Your task to perform on an android device: turn on notifications settings in the gmail app Image 0: 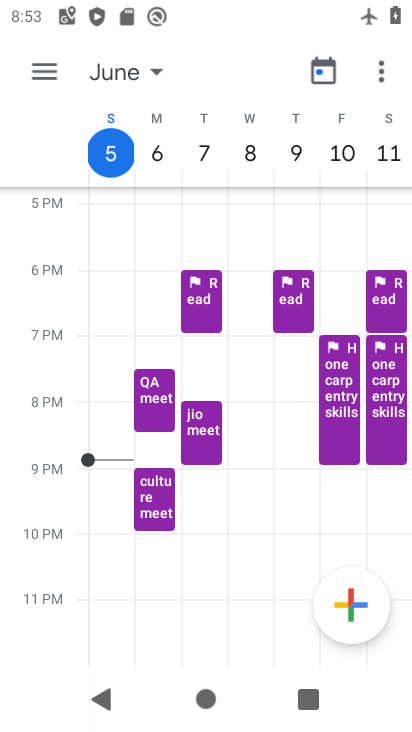
Step 0: press home button
Your task to perform on an android device: turn on notifications settings in the gmail app Image 1: 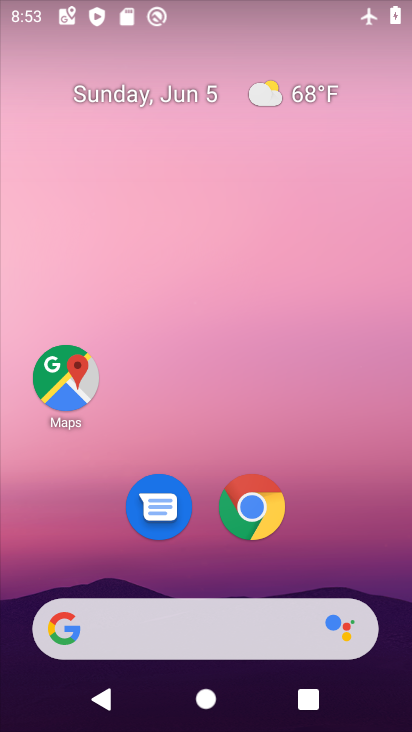
Step 1: drag from (224, 561) to (246, 132)
Your task to perform on an android device: turn on notifications settings in the gmail app Image 2: 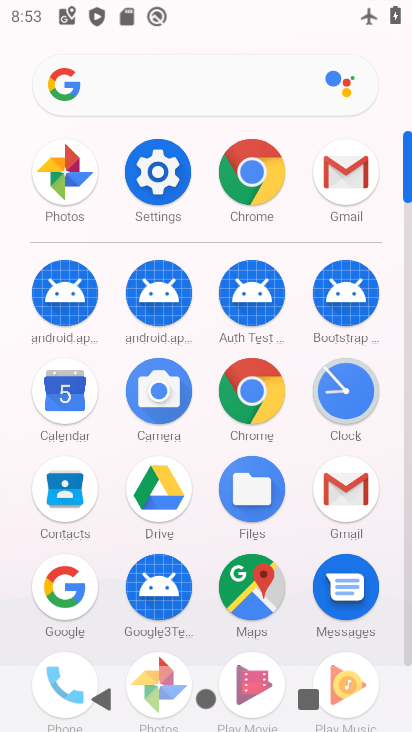
Step 2: click (346, 500)
Your task to perform on an android device: turn on notifications settings in the gmail app Image 3: 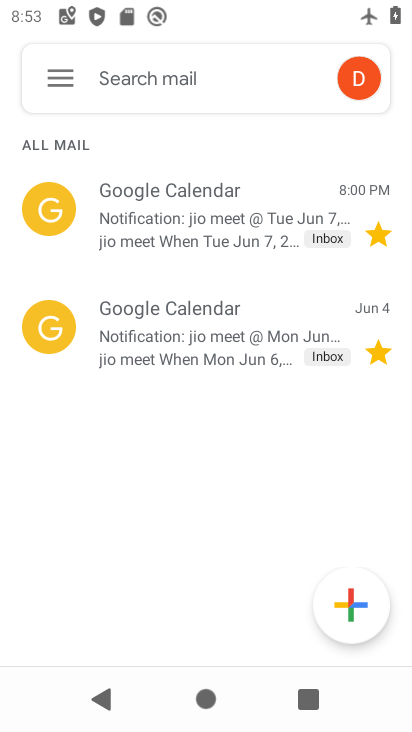
Step 3: click (54, 64)
Your task to perform on an android device: turn on notifications settings in the gmail app Image 4: 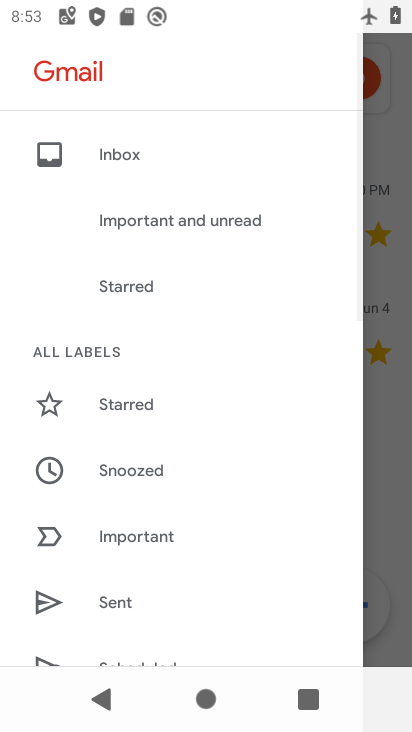
Step 4: drag from (139, 548) to (186, 113)
Your task to perform on an android device: turn on notifications settings in the gmail app Image 5: 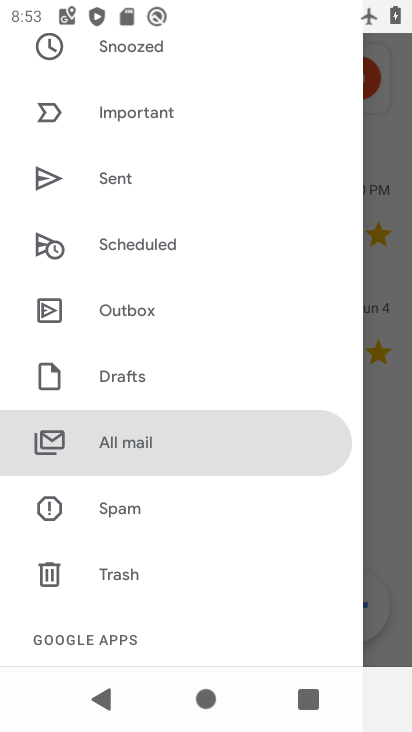
Step 5: drag from (159, 590) to (215, 111)
Your task to perform on an android device: turn on notifications settings in the gmail app Image 6: 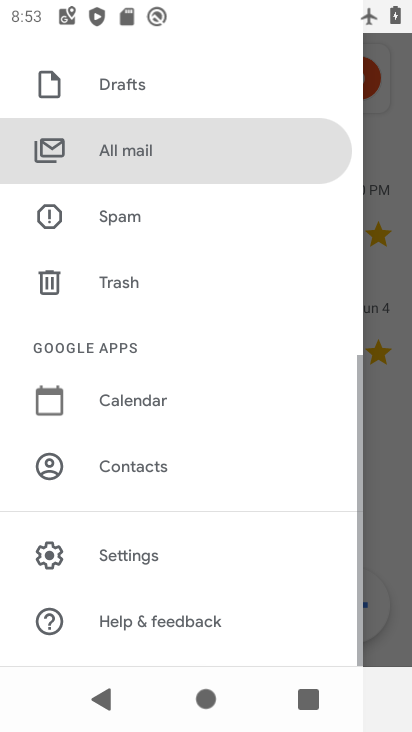
Step 6: click (125, 574)
Your task to perform on an android device: turn on notifications settings in the gmail app Image 7: 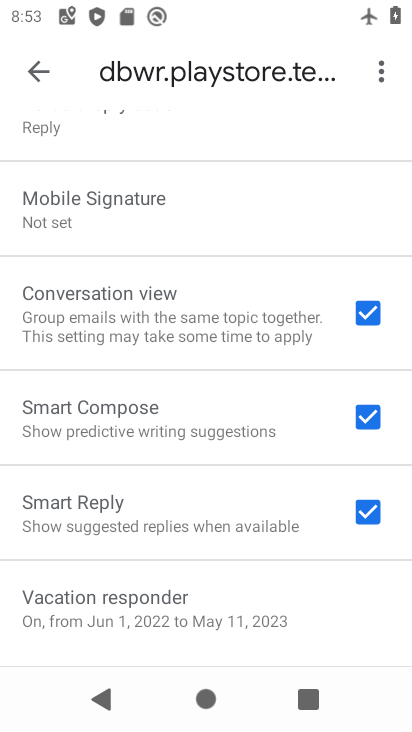
Step 7: click (36, 62)
Your task to perform on an android device: turn on notifications settings in the gmail app Image 8: 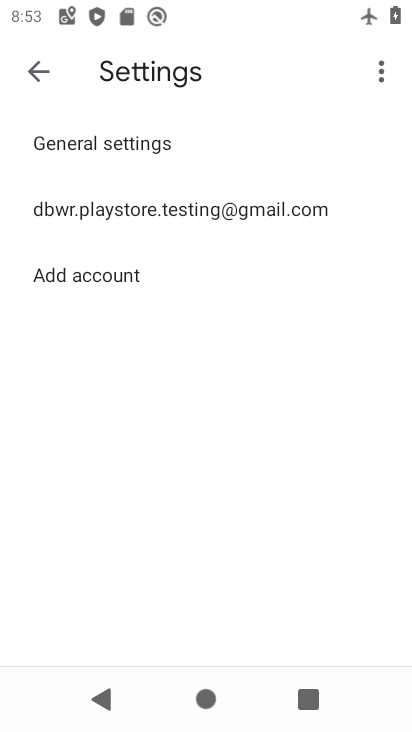
Step 8: click (122, 153)
Your task to perform on an android device: turn on notifications settings in the gmail app Image 9: 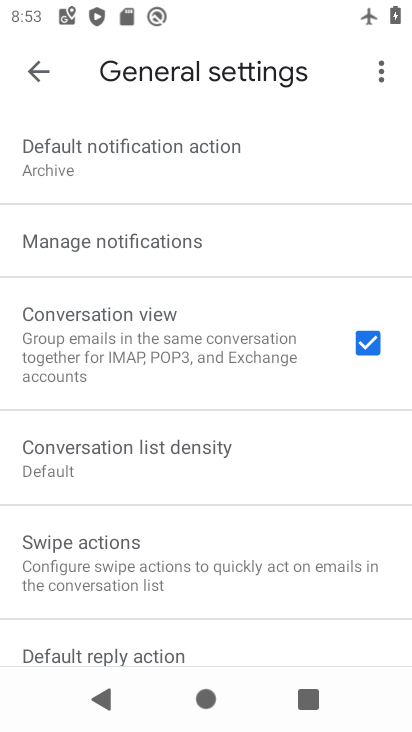
Step 9: click (136, 238)
Your task to perform on an android device: turn on notifications settings in the gmail app Image 10: 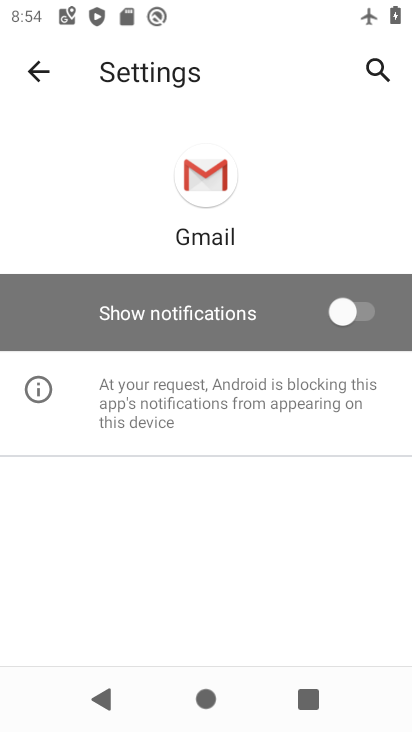
Step 10: click (376, 323)
Your task to perform on an android device: turn on notifications settings in the gmail app Image 11: 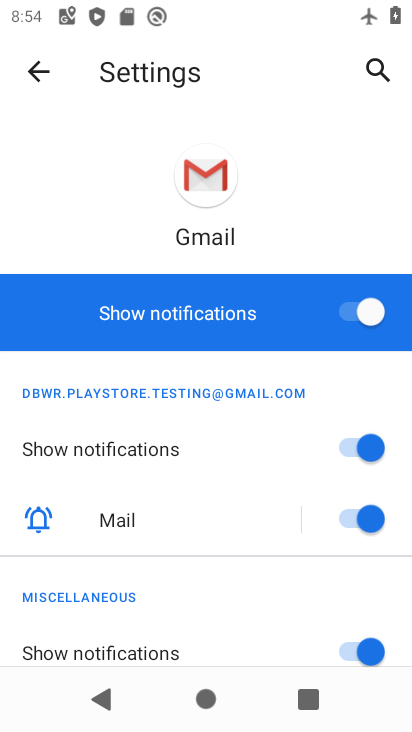
Step 11: task complete